Your task to perform on an android device: set an alarm Image 0: 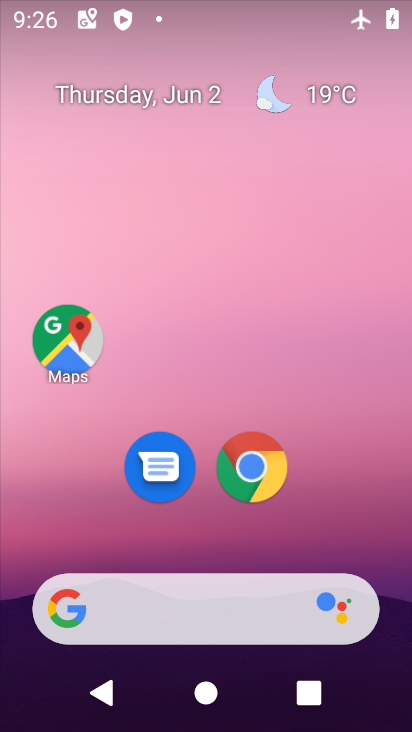
Step 0: drag from (203, 564) to (220, 160)
Your task to perform on an android device: set an alarm Image 1: 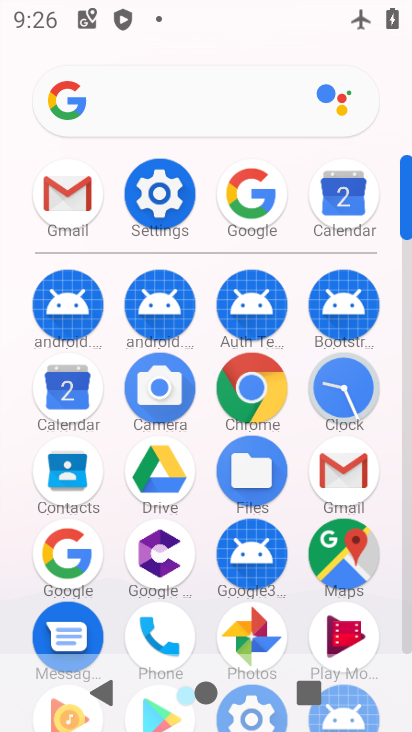
Step 1: click (348, 373)
Your task to perform on an android device: set an alarm Image 2: 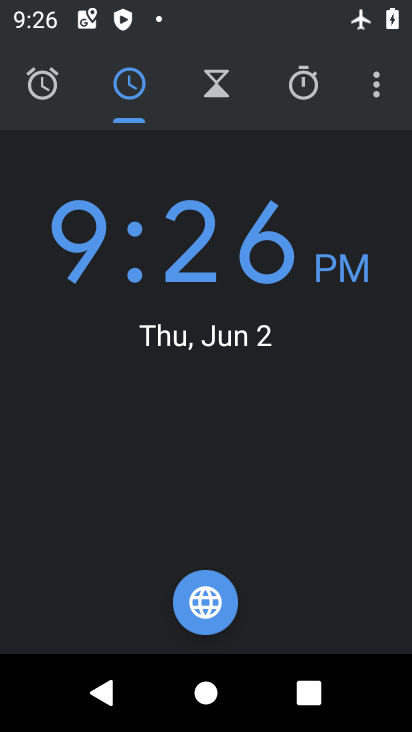
Step 2: click (33, 89)
Your task to perform on an android device: set an alarm Image 3: 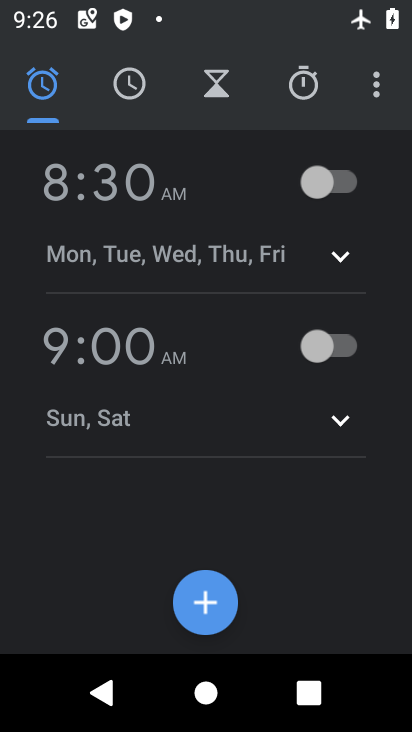
Step 3: click (336, 183)
Your task to perform on an android device: set an alarm Image 4: 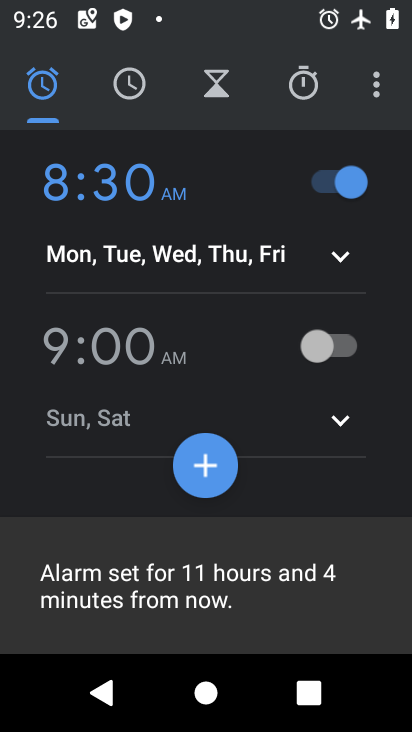
Step 4: task complete